Your task to perform on an android device: Open Google Image 0: 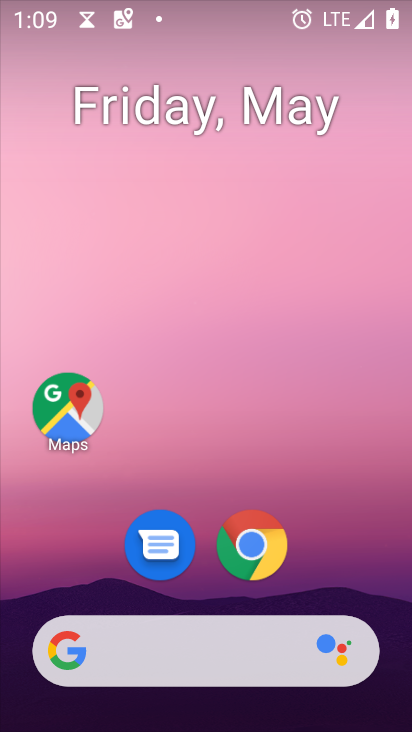
Step 0: drag from (330, 552) to (226, 80)
Your task to perform on an android device: Open Google Image 1: 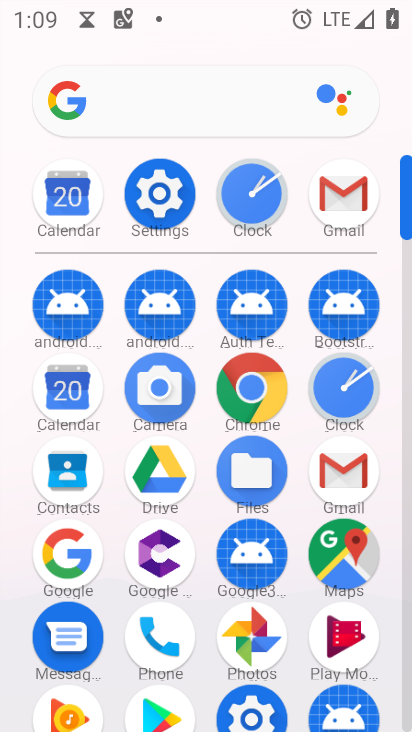
Step 1: click (66, 558)
Your task to perform on an android device: Open Google Image 2: 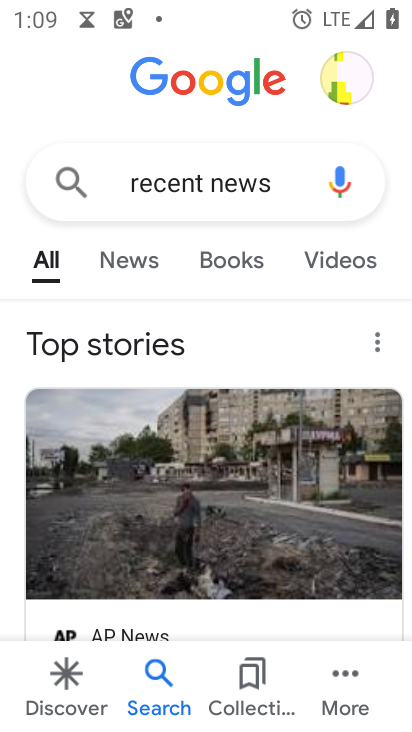
Step 2: task complete